Your task to perform on an android device: install app "ZOOM Cloud Meetings" Image 0: 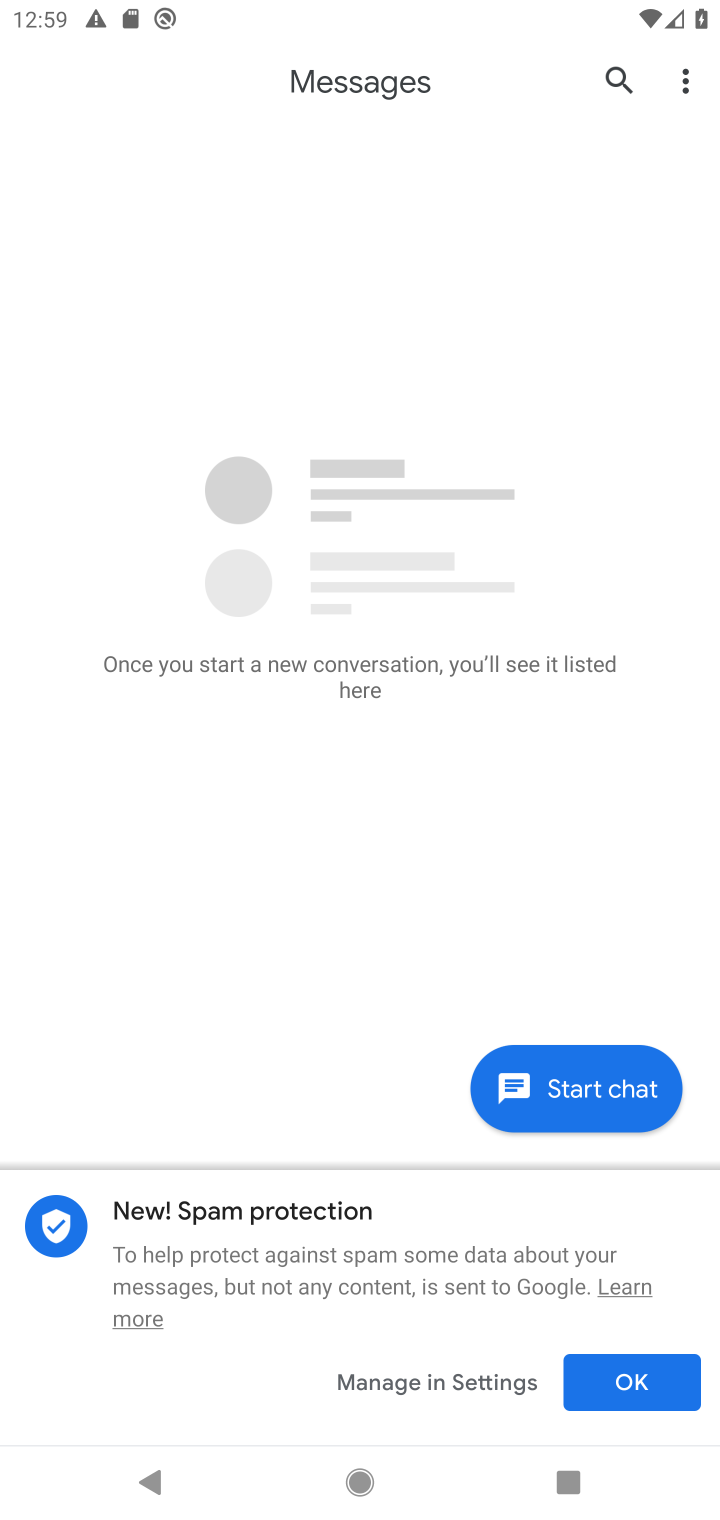
Step 0: press home button
Your task to perform on an android device: install app "ZOOM Cloud Meetings" Image 1: 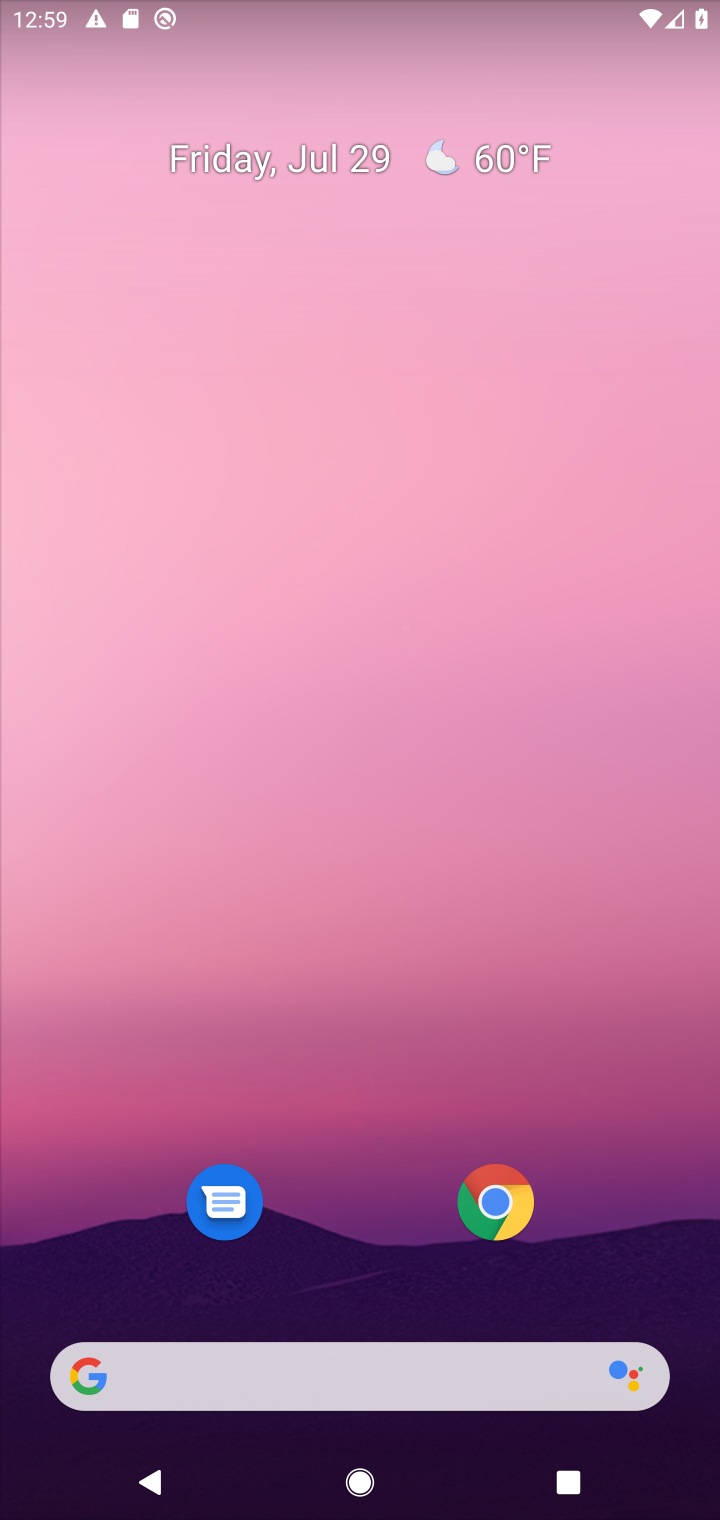
Step 1: click (482, 1388)
Your task to perform on an android device: install app "ZOOM Cloud Meetings" Image 2: 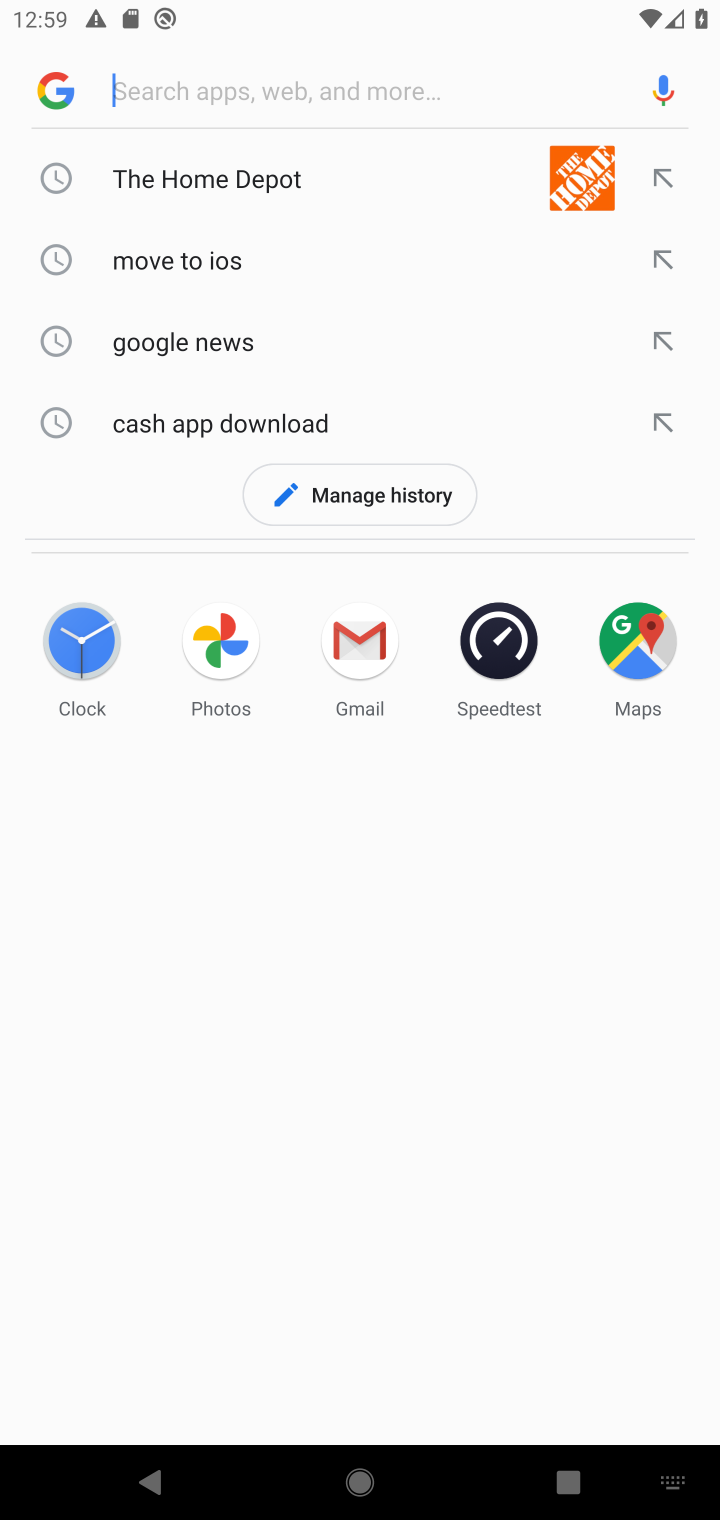
Step 2: type "zoom "
Your task to perform on an android device: install app "ZOOM Cloud Meetings" Image 3: 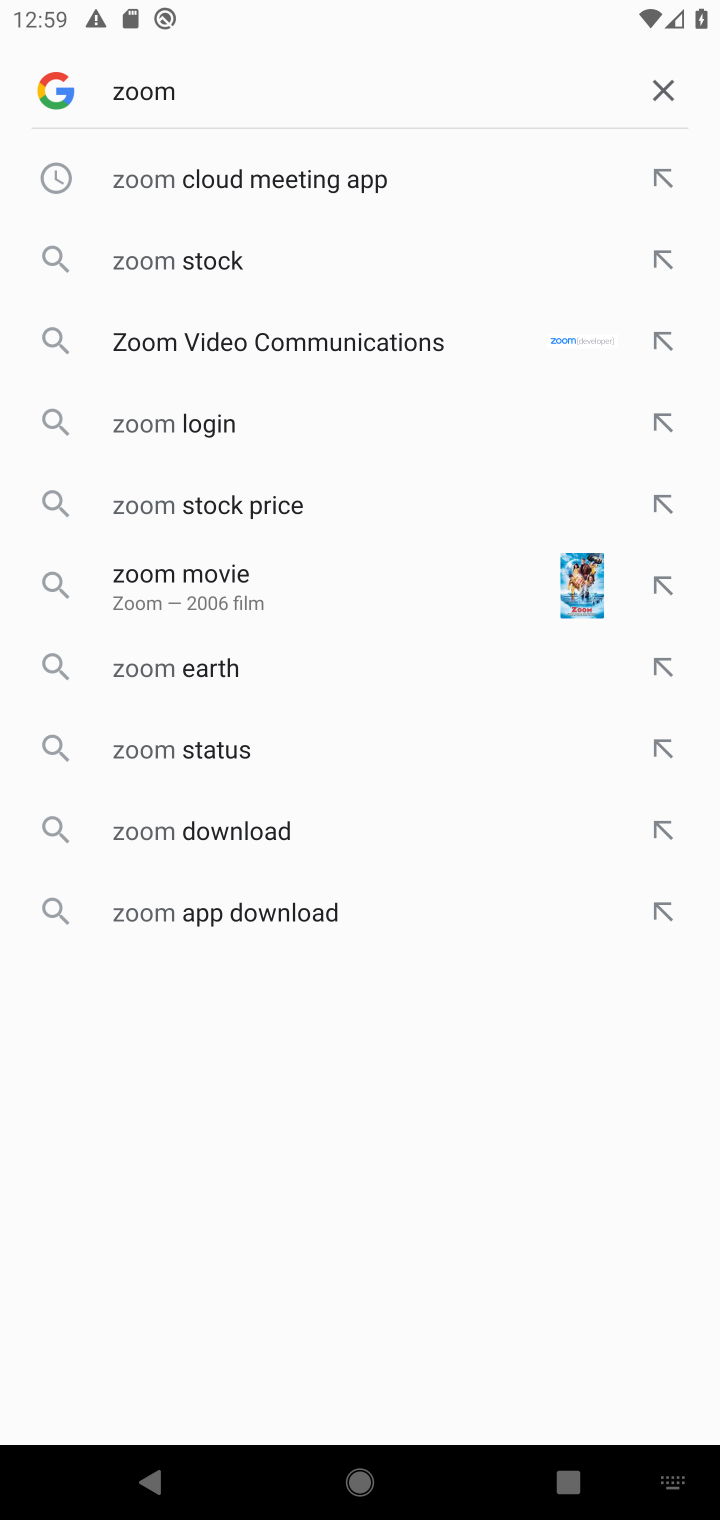
Step 3: click (337, 197)
Your task to perform on an android device: install app "ZOOM Cloud Meetings" Image 4: 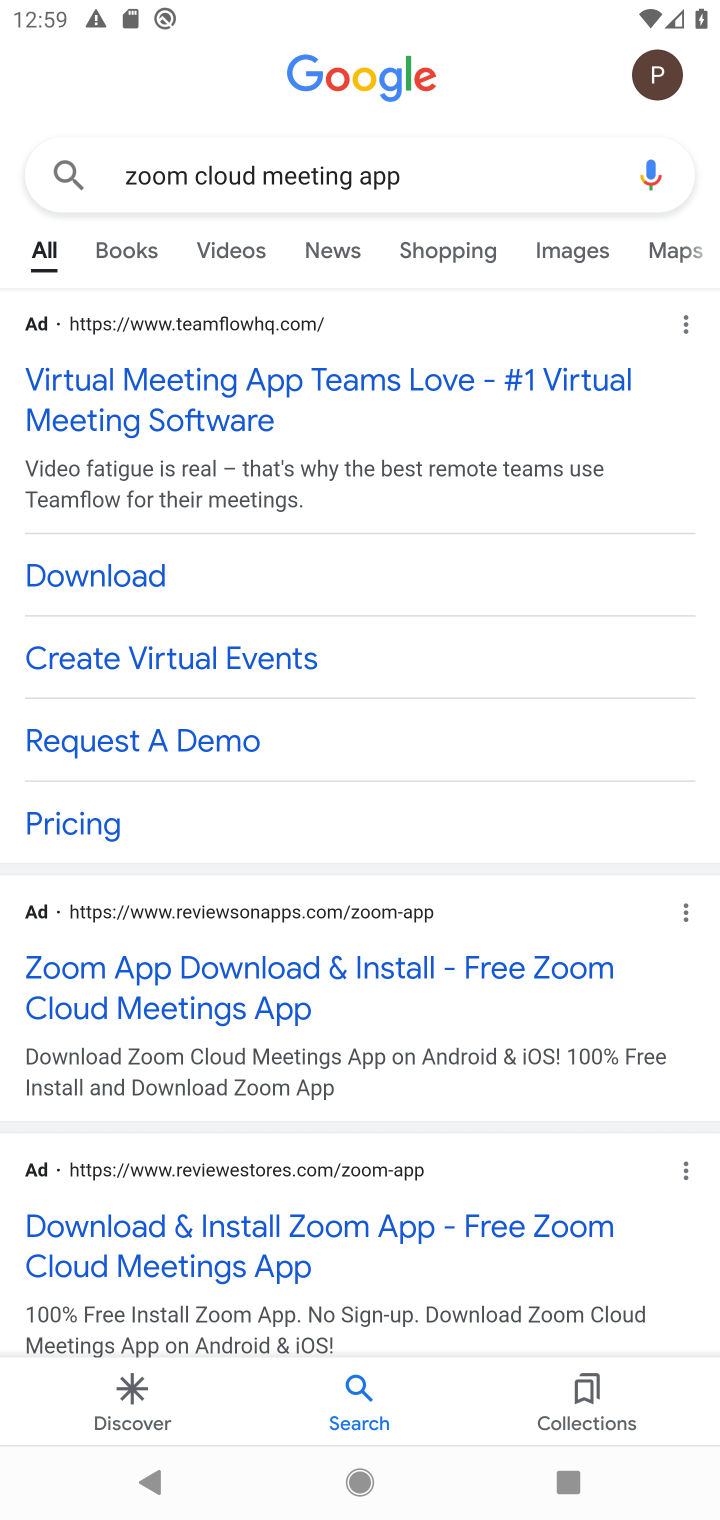
Step 4: drag from (504, 1005) to (397, 282)
Your task to perform on an android device: install app "ZOOM Cloud Meetings" Image 5: 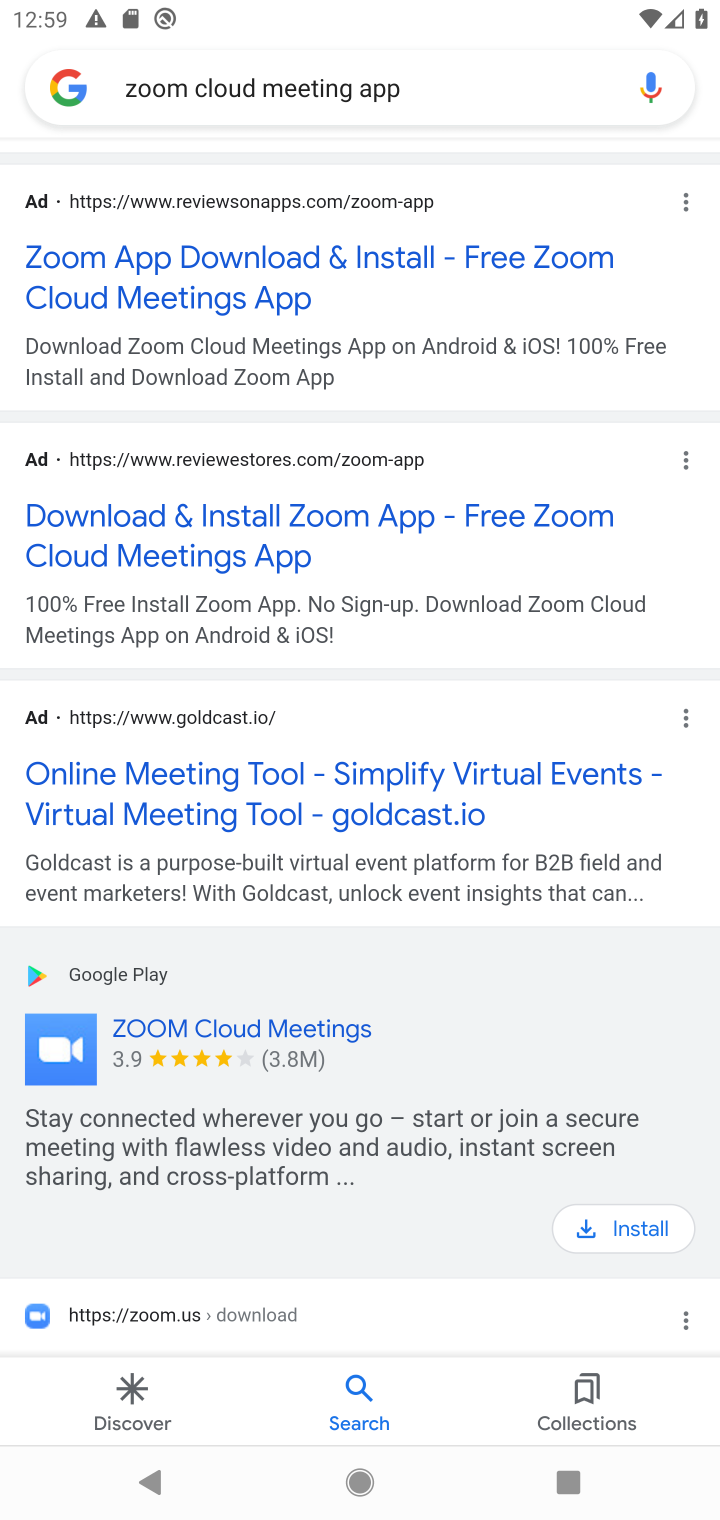
Step 5: click (609, 1225)
Your task to perform on an android device: install app "ZOOM Cloud Meetings" Image 6: 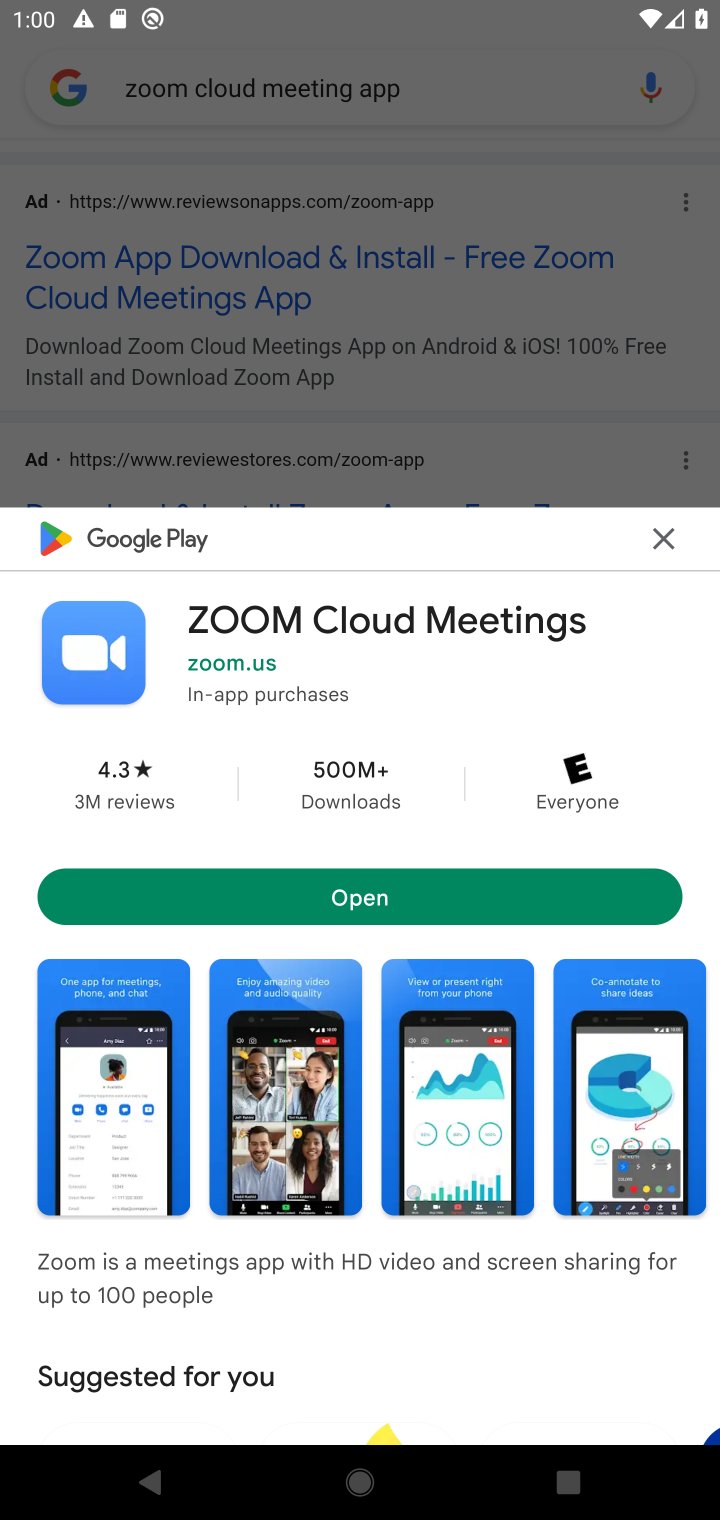
Step 6: click (579, 893)
Your task to perform on an android device: install app "ZOOM Cloud Meetings" Image 7: 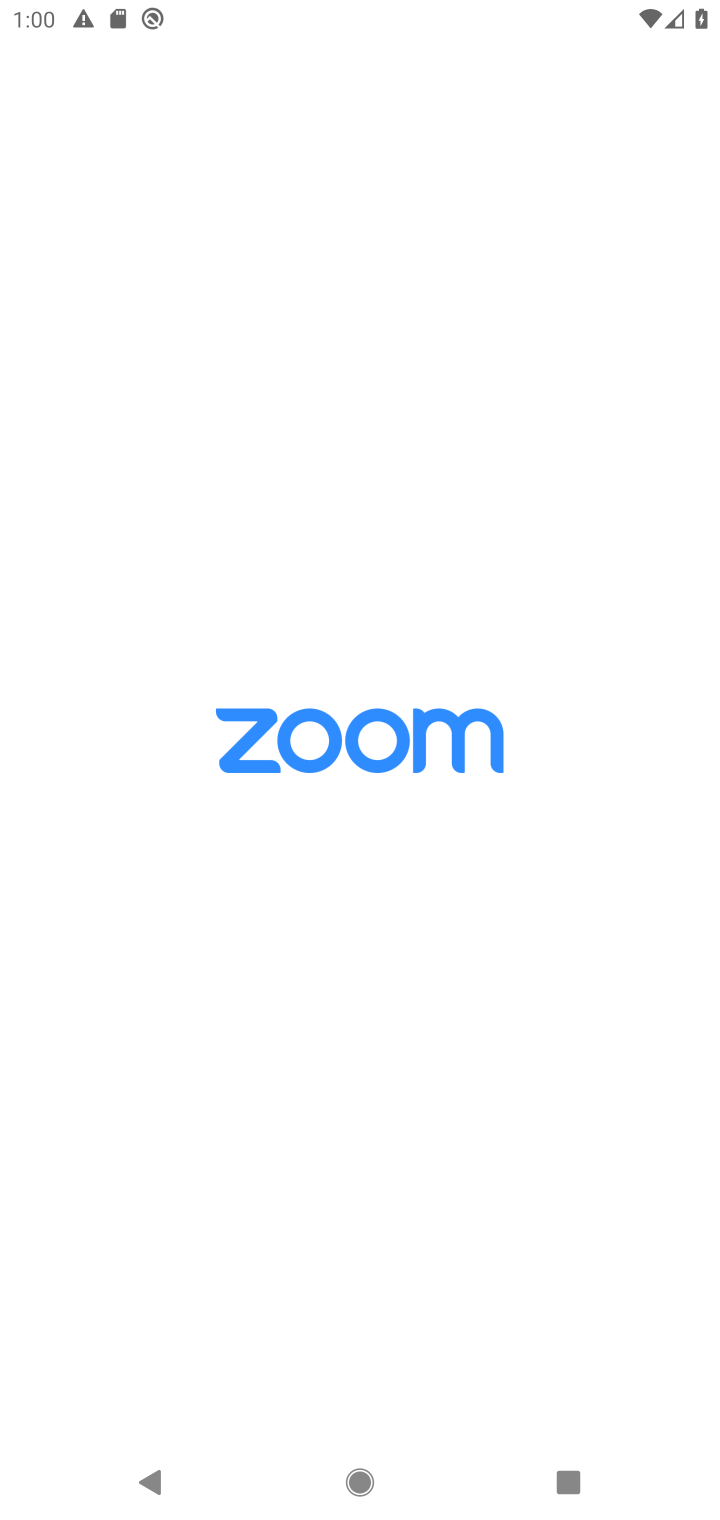
Step 7: task complete